Your task to perform on an android device: empty trash in google photos Image 0: 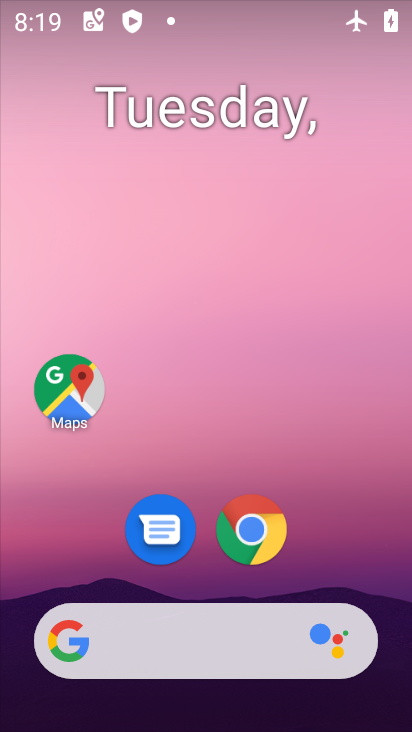
Step 0: drag from (198, 651) to (198, 104)
Your task to perform on an android device: empty trash in google photos Image 1: 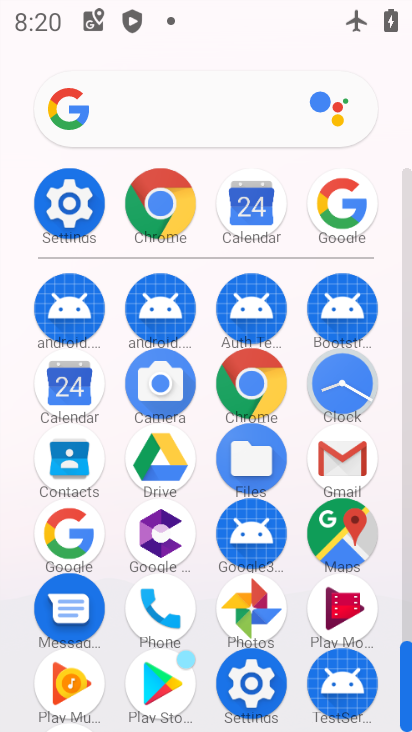
Step 1: click (249, 610)
Your task to perform on an android device: empty trash in google photos Image 2: 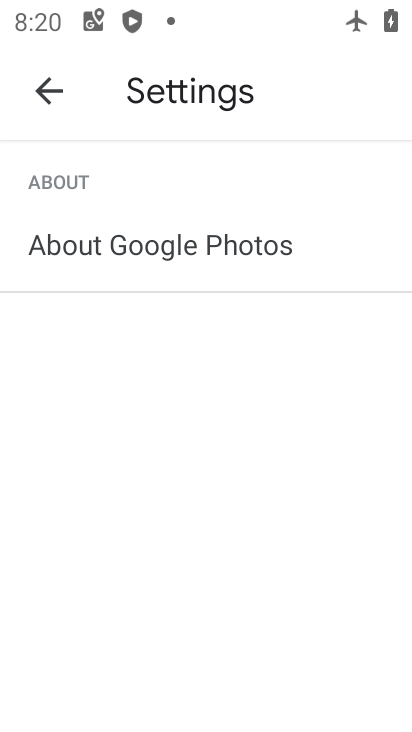
Step 2: press home button
Your task to perform on an android device: empty trash in google photos Image 3: 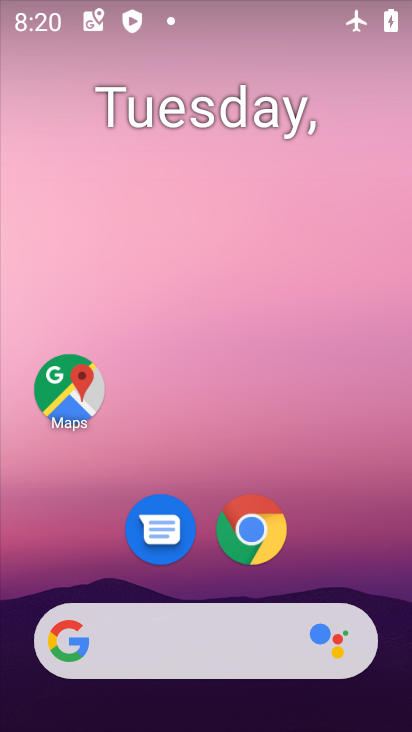
Step 3: drag from (246, 613) to (295, 68)
Your task to perform on an android device: empty trash in google photos Image 4: 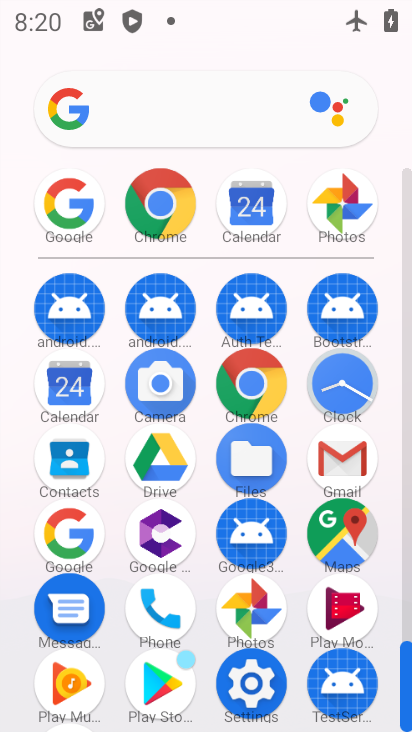
Step 4: click (256, 610)
Your task to perform on an android device: empty trash in google photos Image 5: 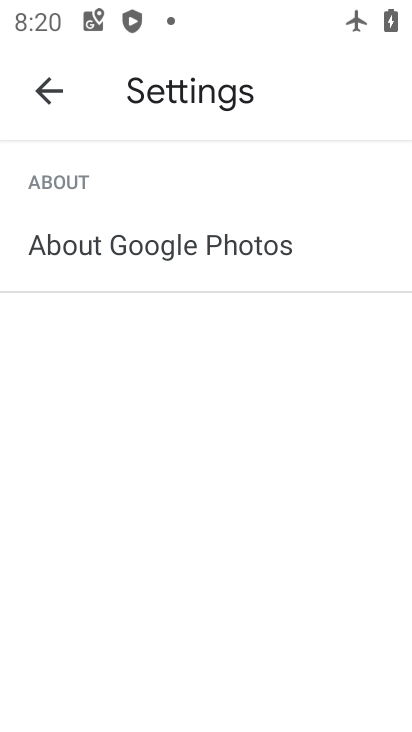
Step 5: click (43, 101)
Your task to perform on an android device: empty trash in google photos Image 6: 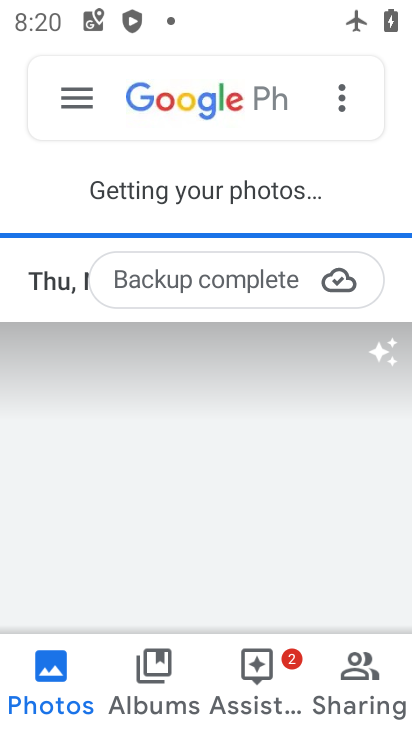
Step 6: click (87, 102)
Your task to perform on an android device: empty trash in google photos Image 7: 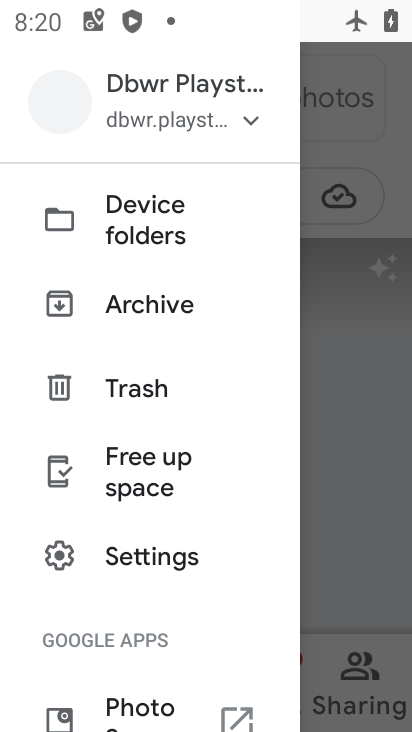
Step 7: click (137, 386)
Your task to perform on an android device: empty trash in google photos Image 8: 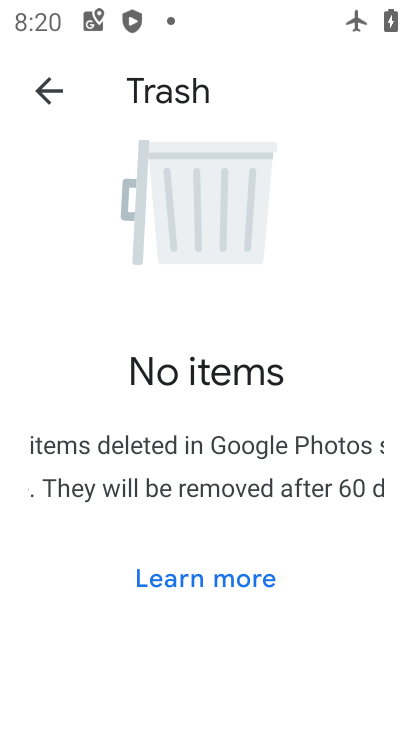
Step 8: task complete